Your task to perform on an android device: Open notification settings Image 0: 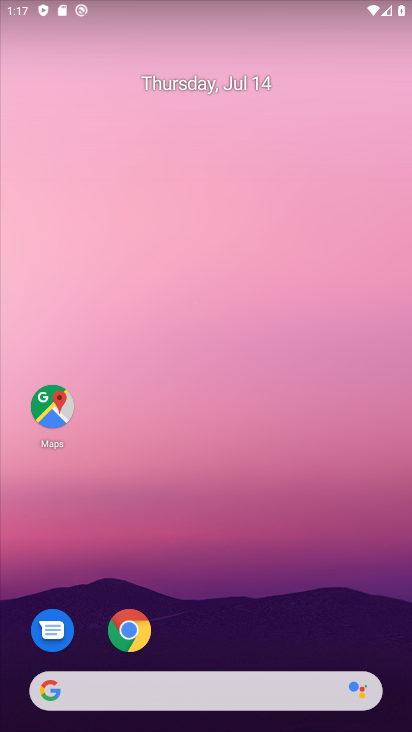
Step 0: drag from (187, 688) to (180, 181)
Your task to perform on an android device: Open notification settings Image 1: 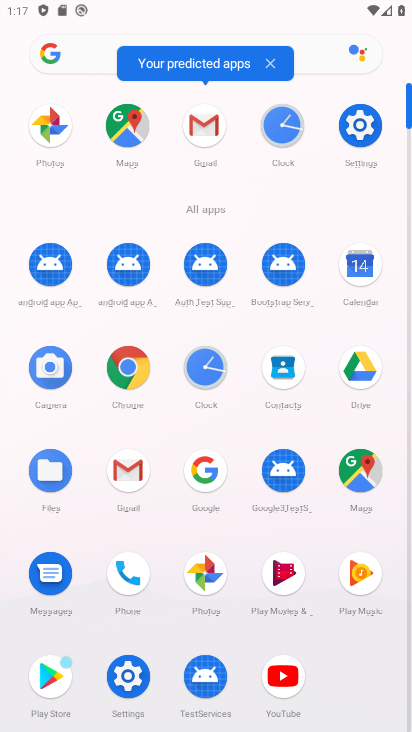
Step 1: click (129, 683)
Your task to perform on an android device: Open notification settings Image 2: 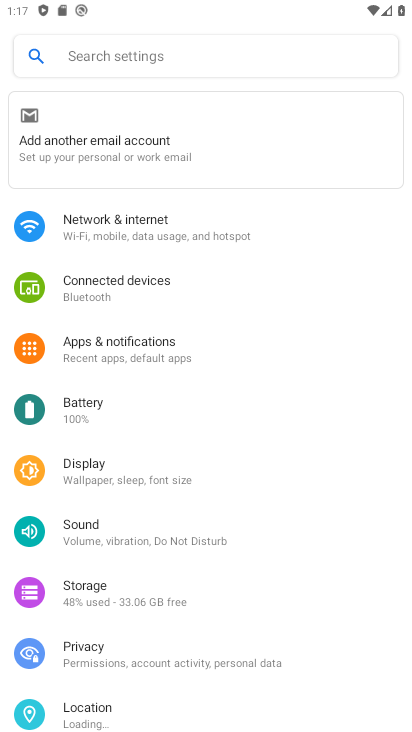
Step 2: click (106, 353)
Your task to perform on an android device: Open notification settings Image 3: 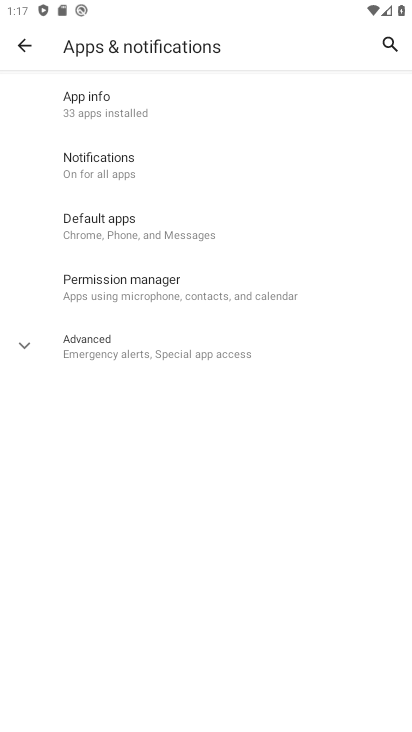
Step 3: task complete